Your task to perform on an android device: find snoozed emails in the gmail app Image 0: 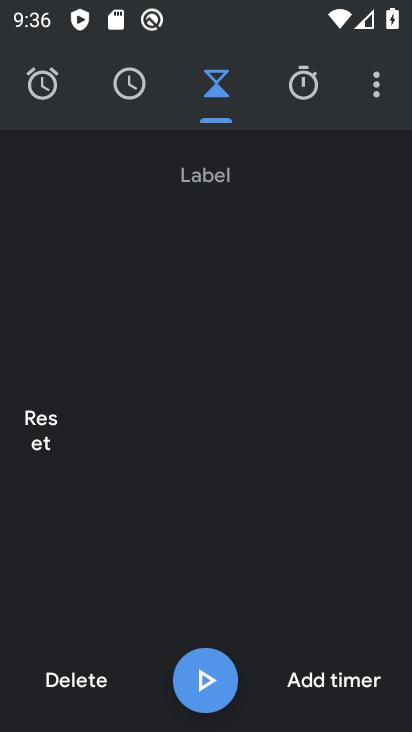
Step 0: press home button
Your task to perform on an android device: find snoozed emails in the gmail app Image 1: 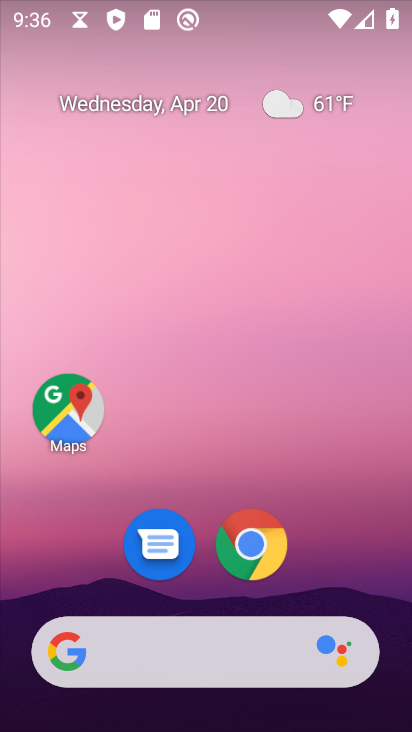
Step 1: drag from (142, 648) to (312, 175)
Your task to perform on an android device: find snoozed emails in the gmail app Image 2: 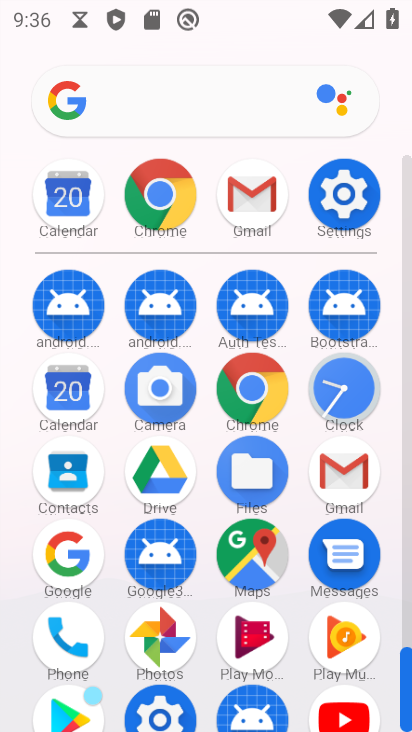
Step 2: click (258, 198)
Your task to perform on an android device: find snoozed emails in the gmail app Image 3: 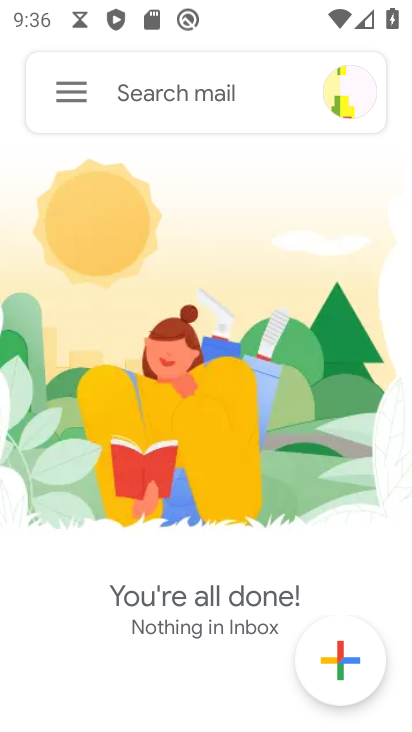
Step 3: click (70, 95)
Your task to perform on an android device: find snoozed emails in the gmail app Image 4: 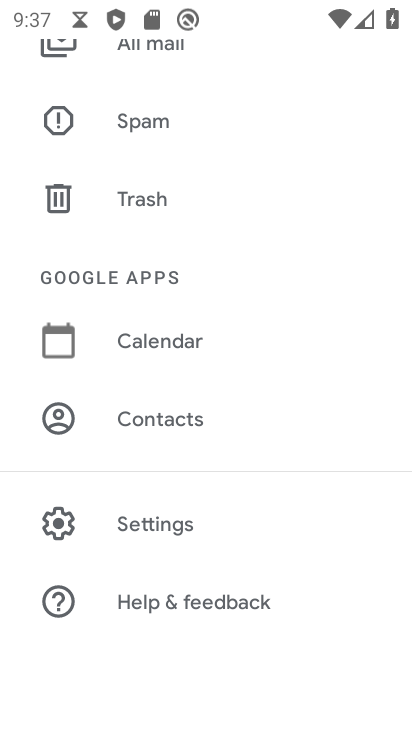
Step 4: drag from (287, 161) to (214, 542)
Your task to perform on an android device: find snoozed emails in the gmail app Image 5: 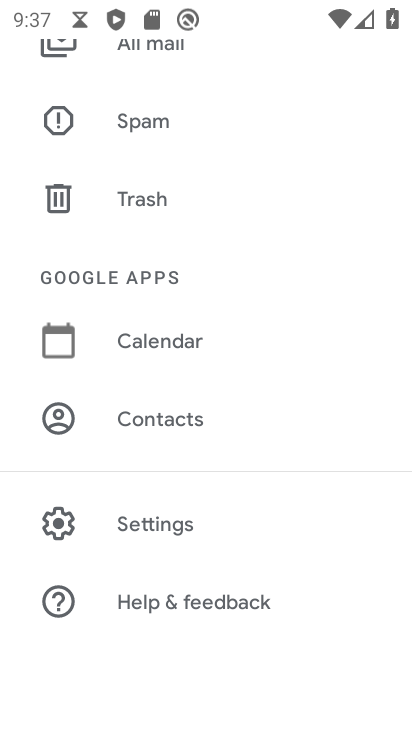
Step 5: drag from (181, 150) to (179, 551)
Your task to perform on an android device: find snoozed emails in the gmail app Image 6: 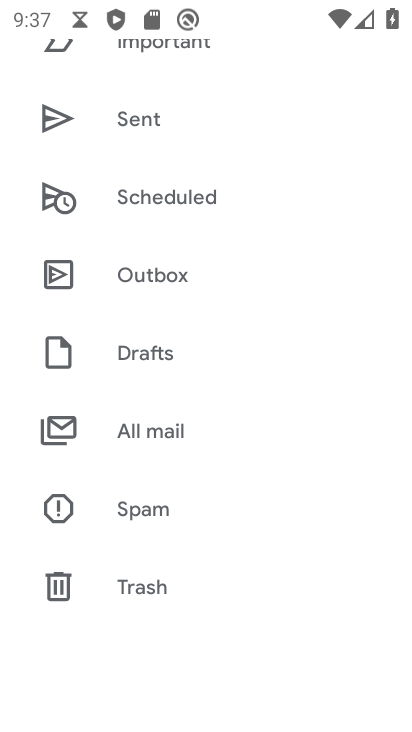
Step 6: drag from (203, 112) to (155, 570)
Your task to perform on an android device: find snoozed emails in the gmail app Image 7: 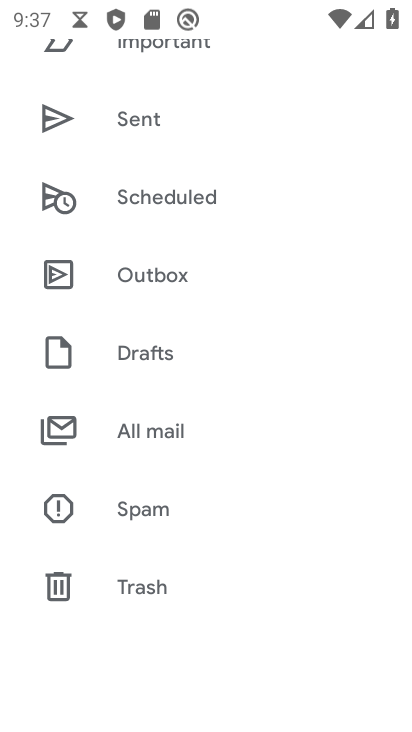
Step 7: drag from (144, 88) to (132, 642)
Your task to perform on an android device: find snoozed emails in the gmail app Image 8: 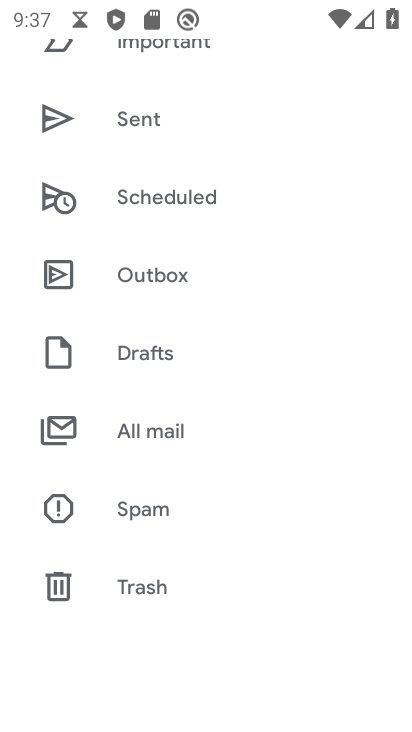
Step 8: drag from (218, 70) to (142, 605)
Your task to perform on an android device: find snoozed emails in the gmail app Image 9: 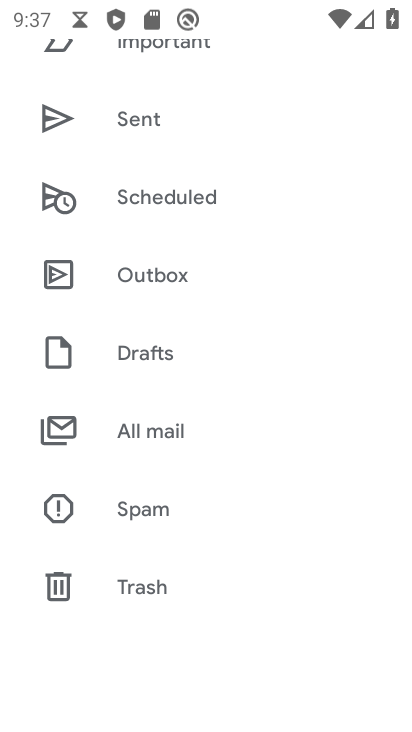
Step 9: drag from (145, 73) to (104, 539)
Your task to perform on an android device: find snoozed emails in the gmail app Image 10: 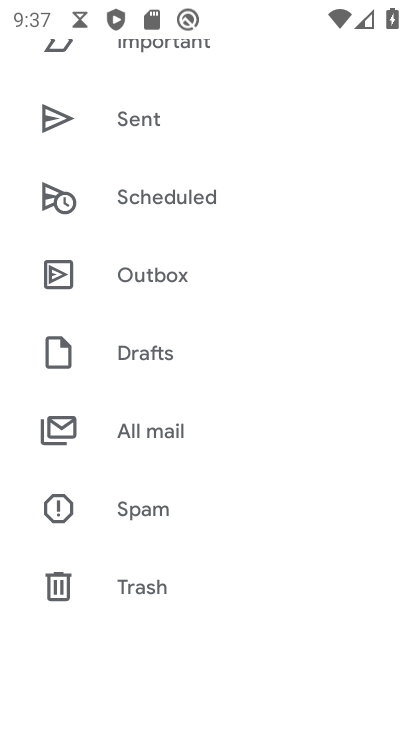
Step 10: drag from (138, 82) to (126, 598)
Your task to perform on an android device: find snoozed emails in the gmail app Image 11: 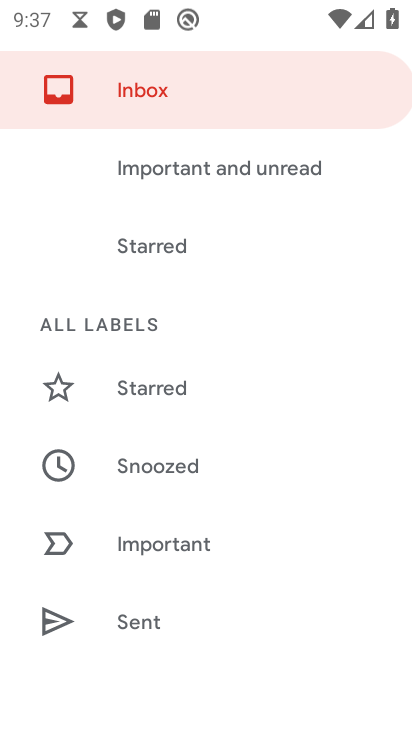
Step 11: click (169, 468)
Your task to perform on an android device: find snoozed emails in the gmail app Image 12: 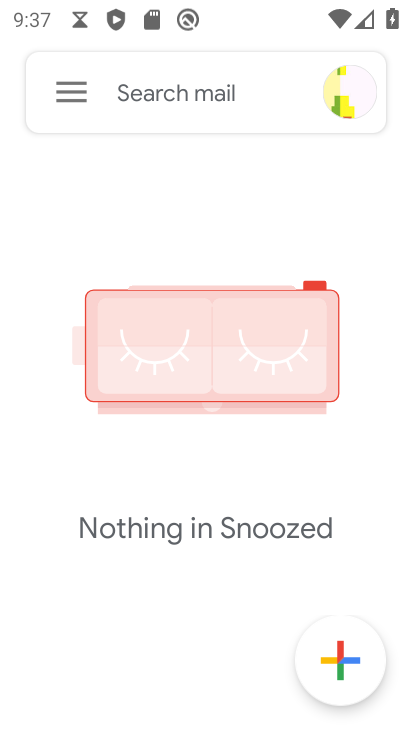
Step 12: task complete